Your task to perform on an android device: Is it going to rain tomorrow? Image 0: 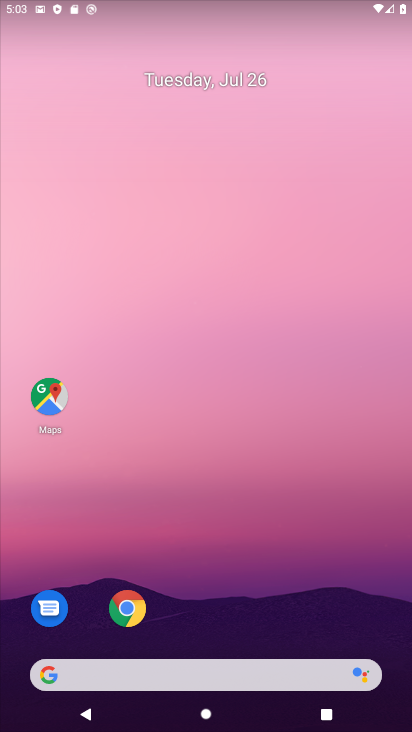
Step 0: click (52, 668)
Your task to perform on an android device: Is it going to rain tomorrow? Image 1: 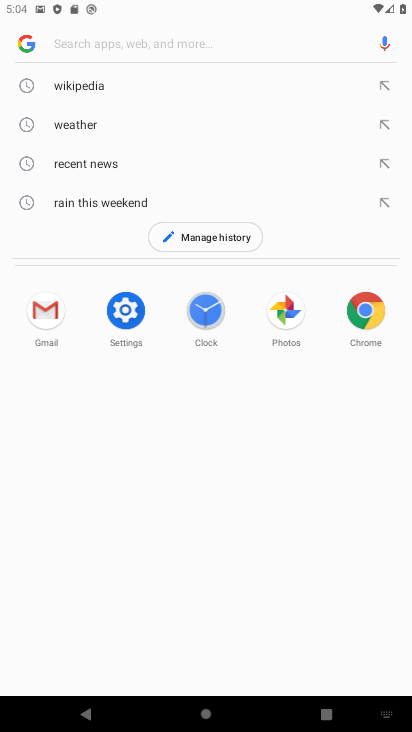
Step 1: press enter
Your task to perform on an android device: Is it going to rain tomorrow? Image 2: 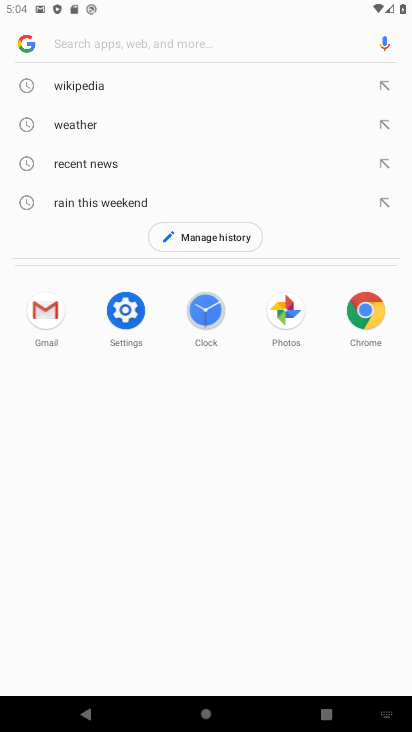
Step 2: type "rain tomorrow?"
Your task to perform on an android device: Is it going to rain tomorrow? Image 3: 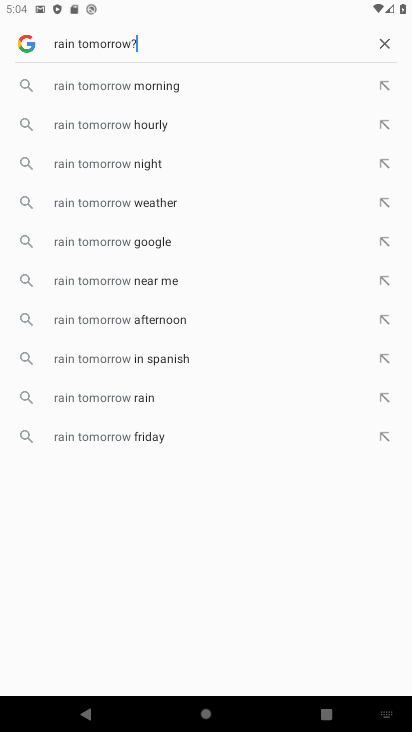
Step 3: press enter
Your task to perform on an android device: Is it going to rain tomorrow? Image 4: 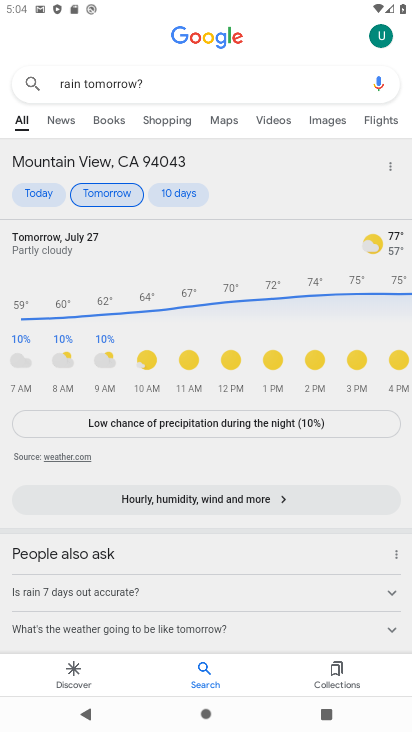
Step 4: task complete